Your task to perform on an android device: turn off smart reply in the gmail app Image 0: 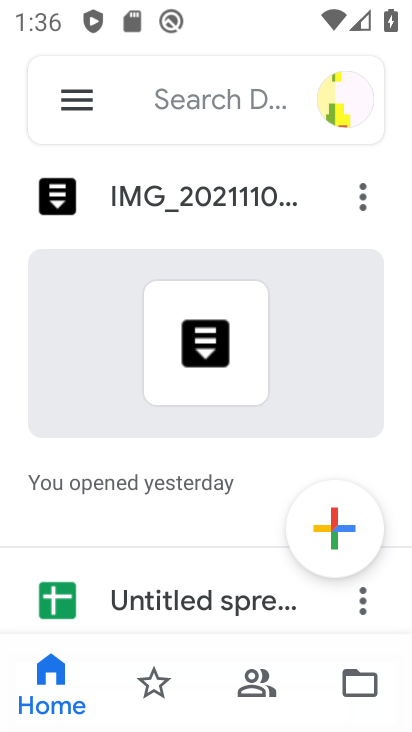
Step 0: press home button
Your task to perform on an android device: turn off smart reply in the gmail app Image 1: 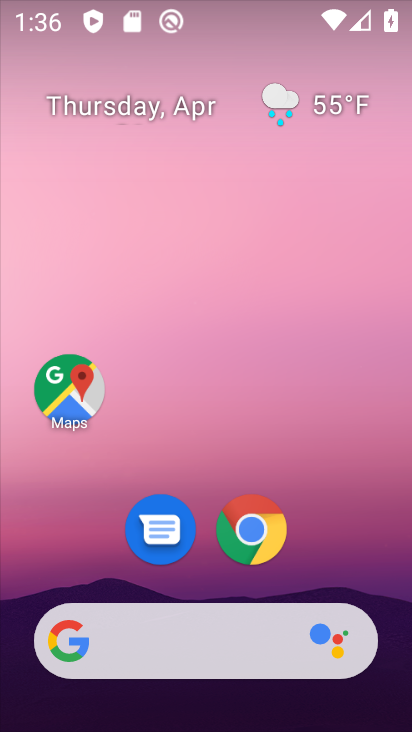
Step 1: drag from (220, 581) to (225, 195)
Your task to perform on an android device: turn off smart reply in the gmail app Image 2: 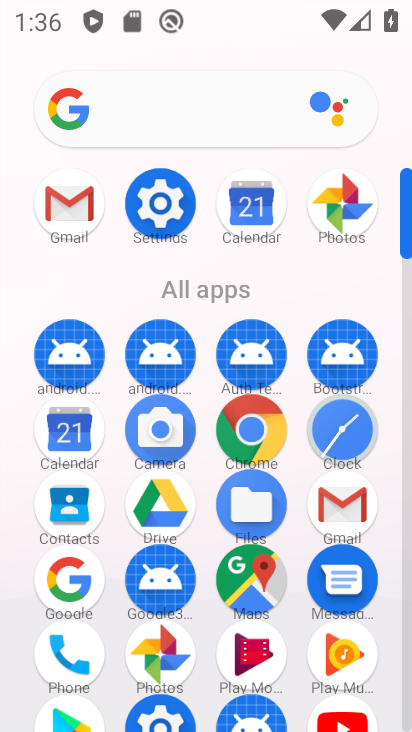
Step 2: click (357, 509)
Your task to perform on an android device: turn off smart reply in the gmail app Image 3: 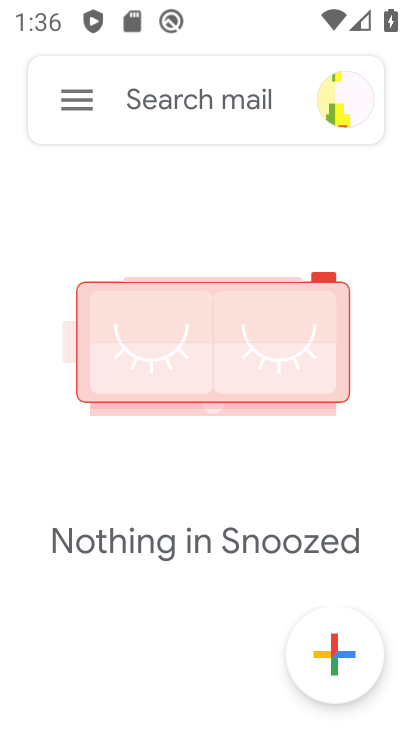
Step 3: click (76, 98)
Your task to perform on an android device: turn off smart reply in the gmail app Image 4: 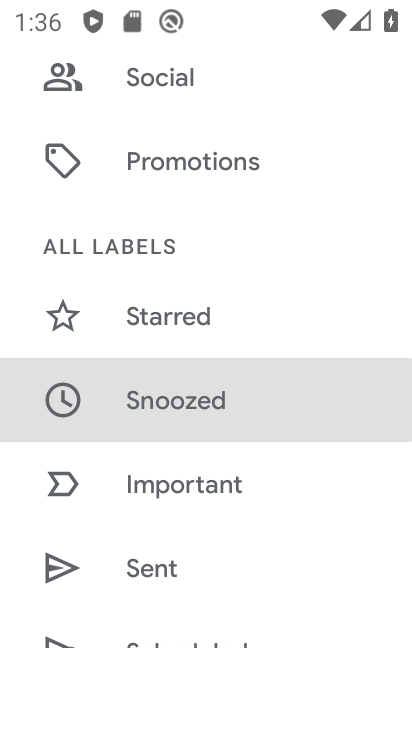
Step 4: drag from (179, 553) to (168, 236)
Your task to perform on an android device: turn off smart reply in the gmail app Image 5: 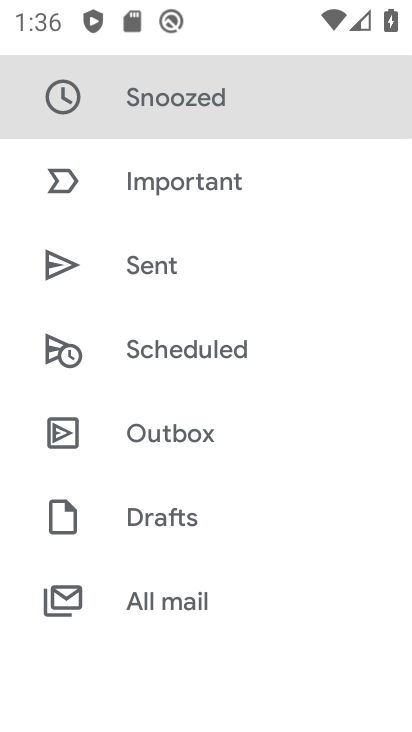
Step 5: drag from (196, 560) to (154, 146)
Your task to perform on an android device: turn off smart reply in the gmail app Image 6: 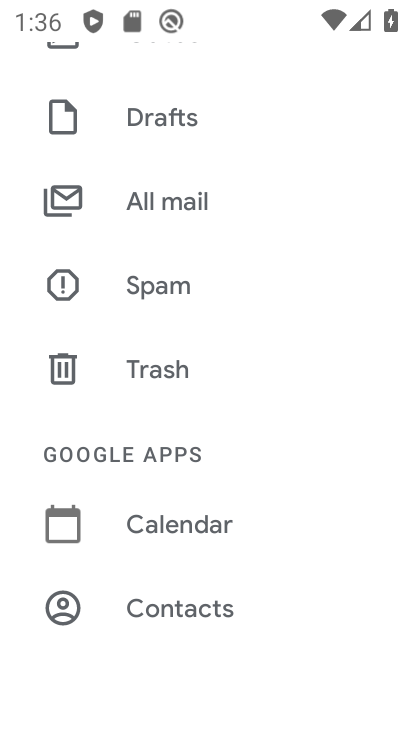
Step 6: drag from (200, 501) to (174, 193)
Your task to perform on an android device: turn off smart reply in the gmail app Image 7: 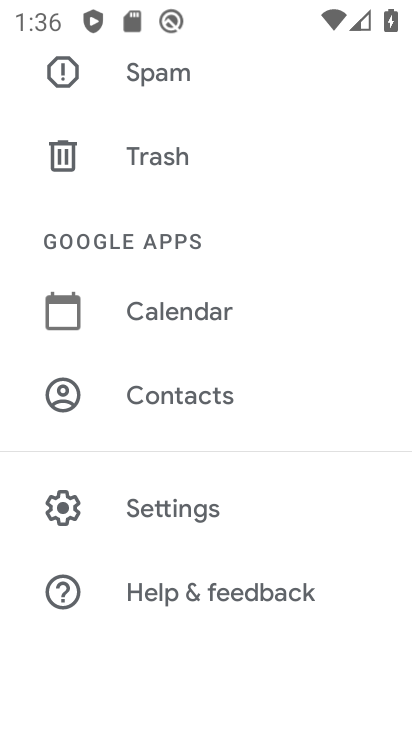
Step 7: click (219, 494)
Your task to perform on an android device: turn off smart reply in the gmail app Image 8: 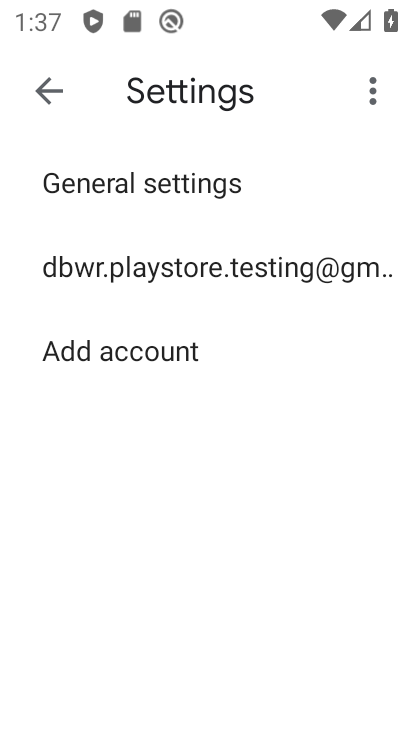
Step 8: click (213, 273)
Your task to perform on an android device: turn off smart reply in the gmail app Image 9: 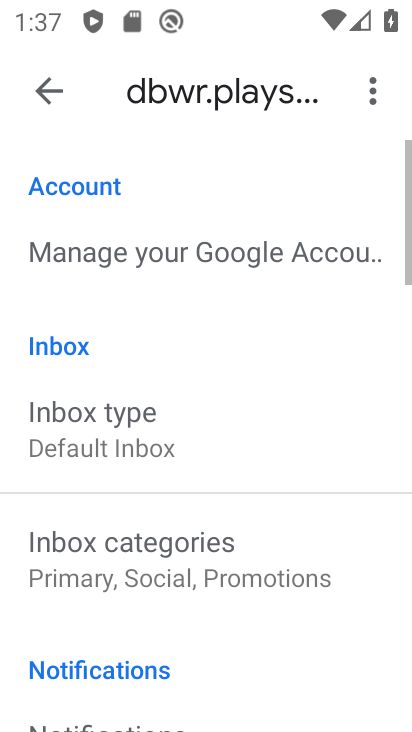
Step 9: drag from (269, 539) to (261, 152)
Your task to perform on an android device: turn off smart reply in the gmail app Image 10: 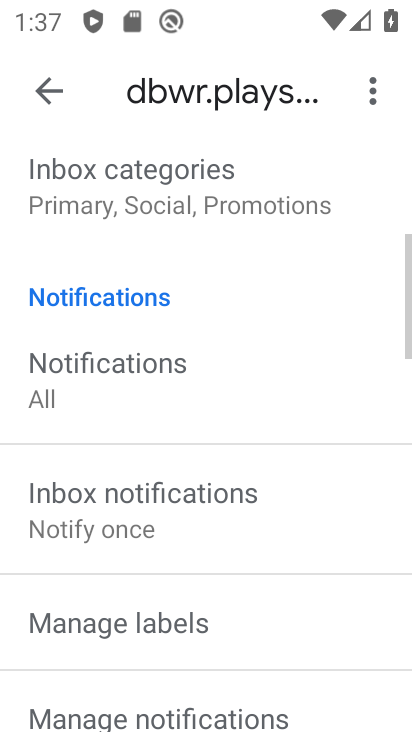
Step 10: drag from (216, 552) to (231, 168)
Your task to perform on an android device: turn off smart reply in the gmail app Image 11: 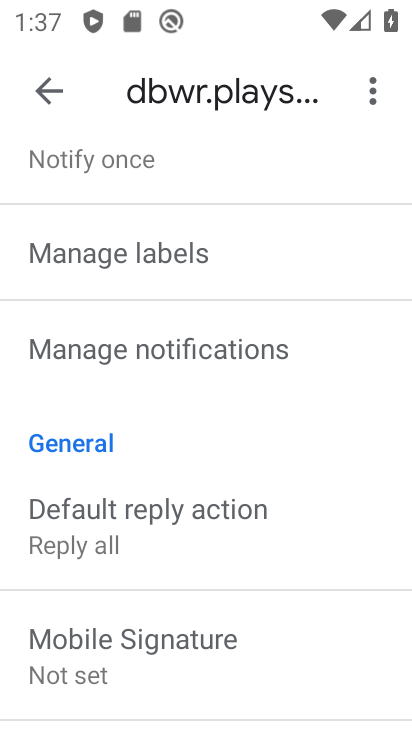
Step 11: drag from (196, 497) to (175, 219)
Your task to perform on an android device: turn off smart reply in the gmail app Image 12: 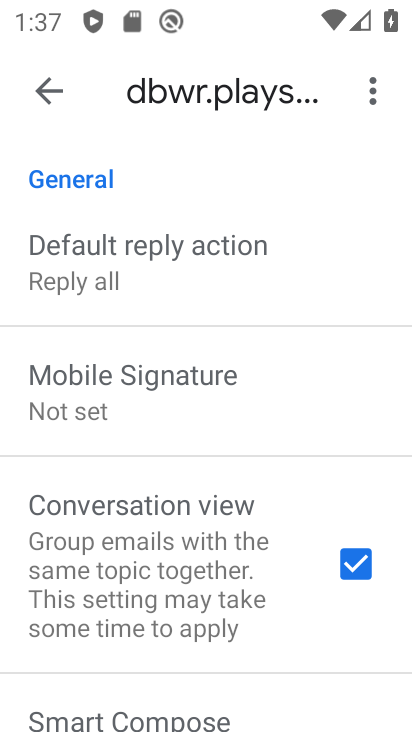
Step 12: drag from (186, 565) to (199, 265)
Your task to perform on an android device: turn off smart reply in the gmail app Image 13: 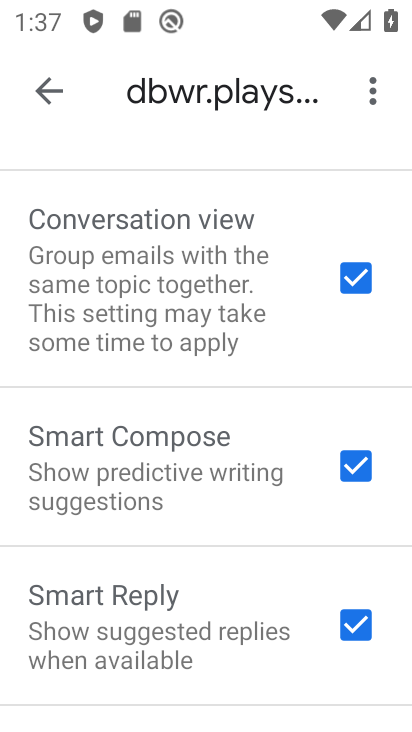
Step 13: click (358, 615)
Your task to perform on an android device: turn off smart reply in the gmail app Image 14: 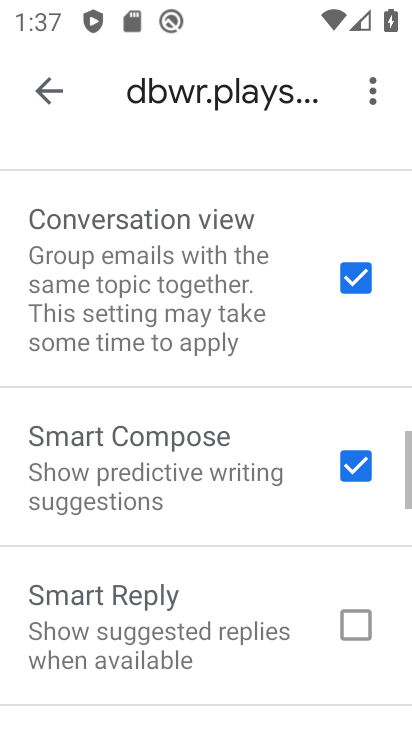
Step 14: task complete